Your task to perform on an android device: Set the phone to "Do not disturb". Image 0: 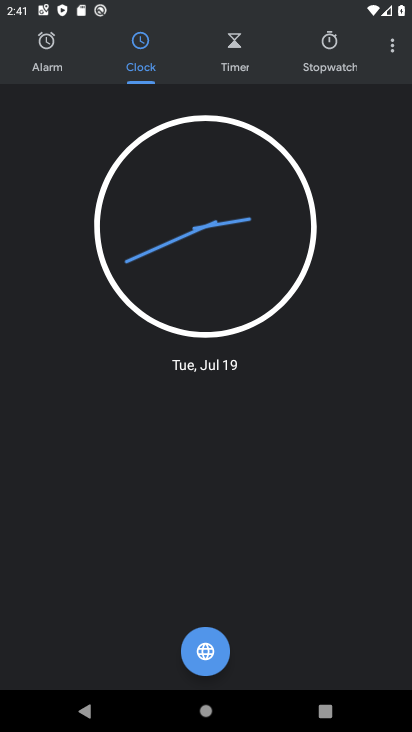
Step 0: press home button
Your task to perform on an android device: Set the phone to "Do not disturb". Image 1: 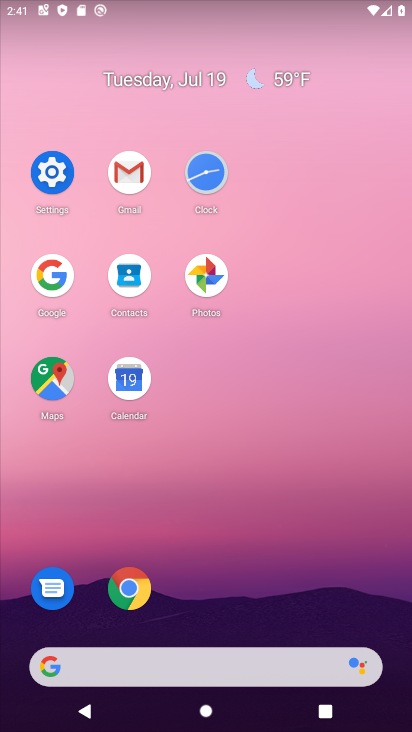
Step 1: click (57, 169)
Your task to perform on an android device: Set the phone to "Do not disturb". Image 2: 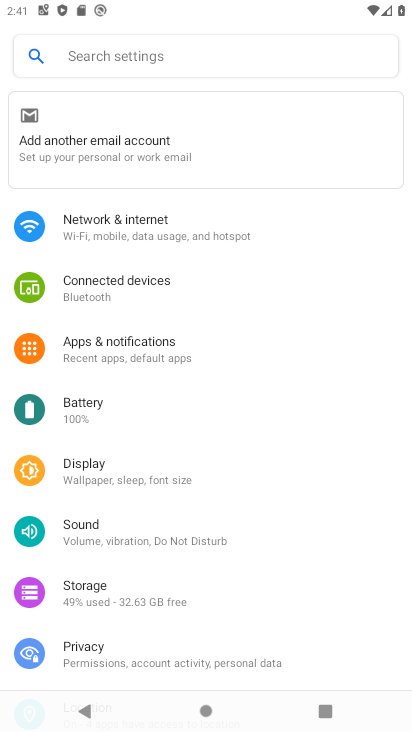
Step 2: click (187, 547)
Your task to perform on an android device: Set the phone to "Do not disturb". Image 3: 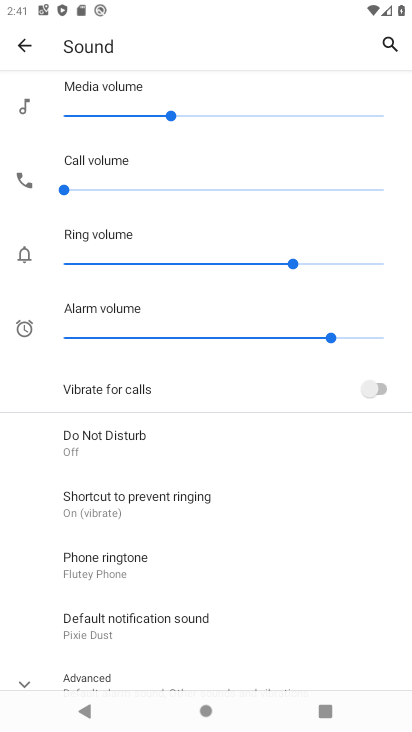
Step 3: click (209, 432)
Your task to perform on an android device: Set the phone to "Do not disturb". Image 4: 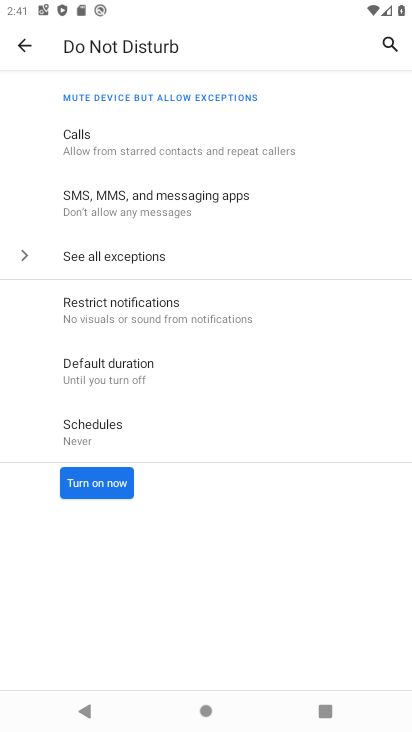
Step 4: click (119, 475)
Your task to perform on an android device: Set the phone to "Do not disturb". Image 5: 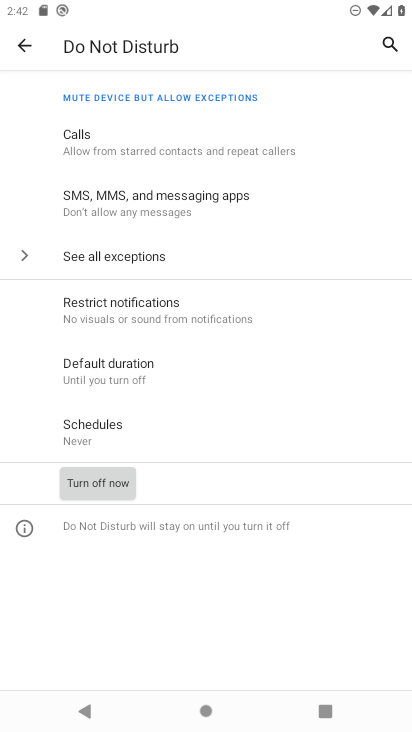
Step 5: task complete